Your task to perform on an android device: Search for vegetarian restaurants on Maps Image 0: 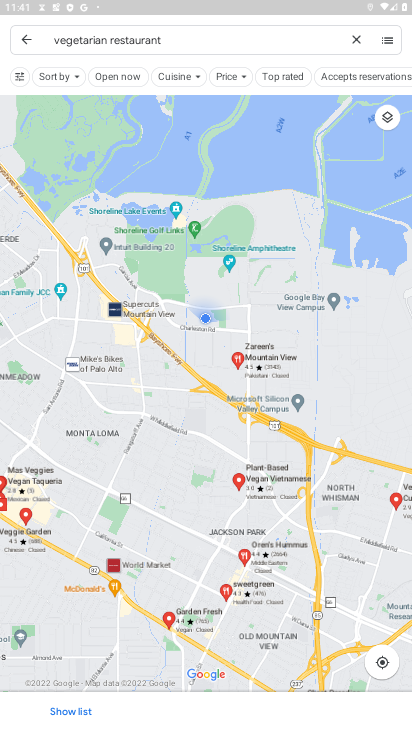
Step 0: task complete